Your task to perform on an android device: Go to Yahoo.com Image 0: 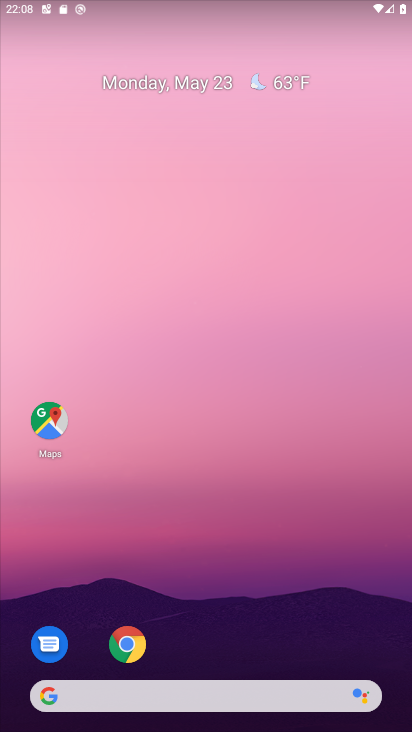
Step 0: click (129, 639)
Your task to perform on an android device: Go to Yahoo.com Image 1: 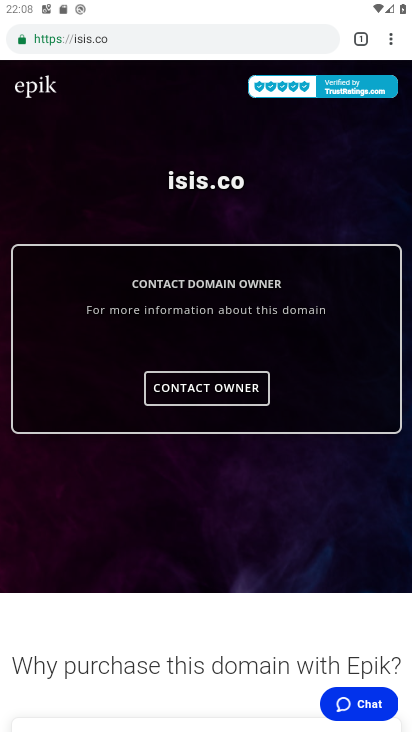
Step 1: click (385, 32)
Your task to perform on an android device: Go to Yahoo.com Image 2: 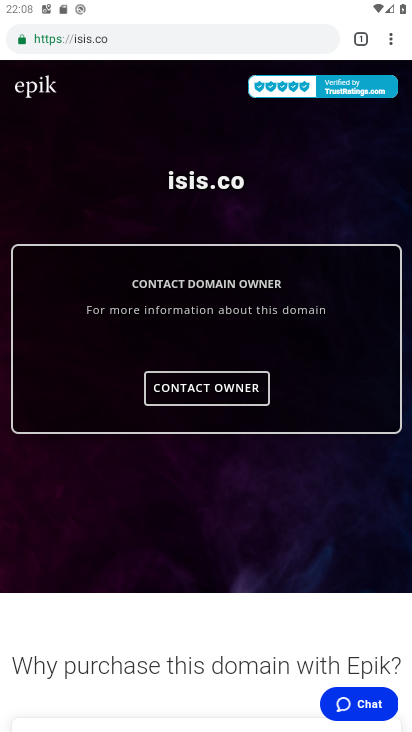
Step 2: click (394, 31)
Your task to perform on an android device: Go to Yahoo.com Image 3: 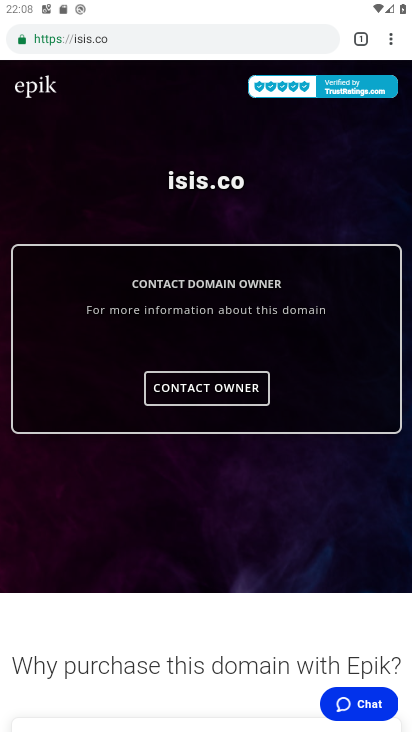
Step 3: click (360, 33)
Your task to perform on an android device: Go to Yahoo.com Image 4: 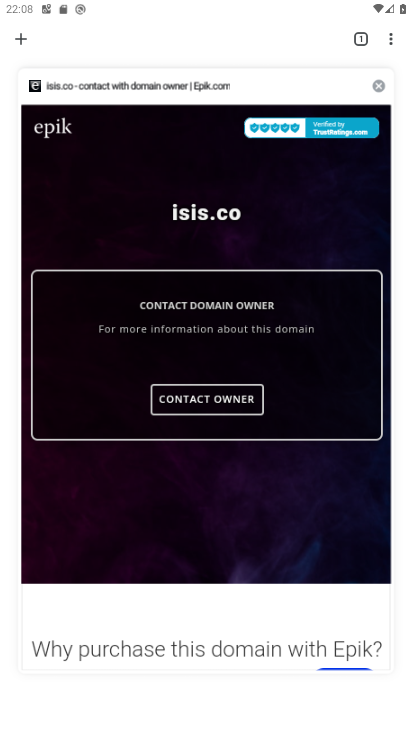
Step 4: click (377, 85)
Your task to perform on an android device: Go to Yahoo.com Image 5: 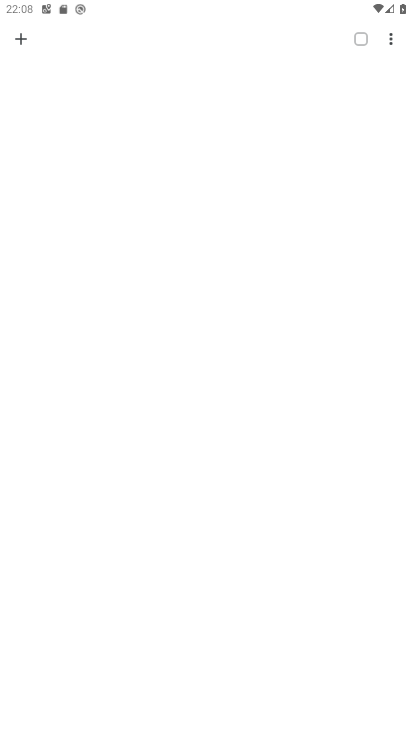
Step 5: click (20, 42)
Your task to perform on an android device: Go to Yahoo.com Image 6: 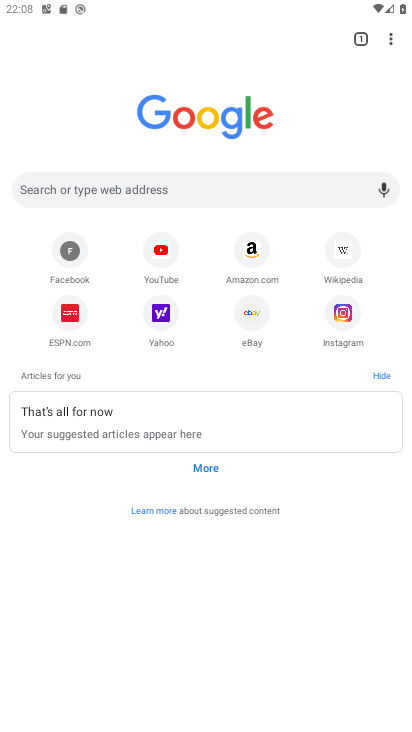
Step 6: click (158, 309)
Your task to perform on an android device: Go to Yahoo.com Image 7: 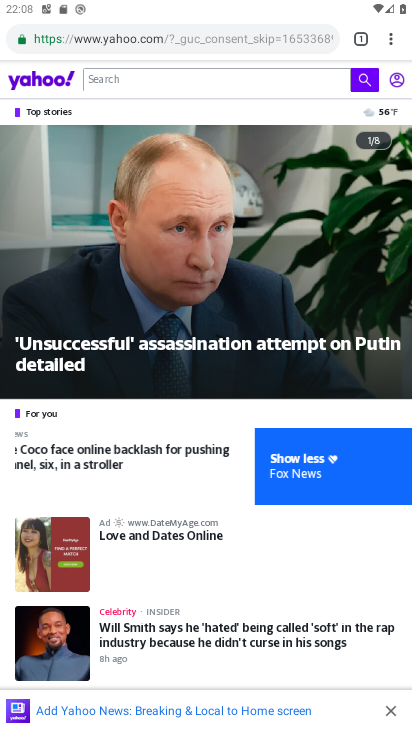
Step 7: task complete